Your task to perform on an android device: check data usage Image 0: 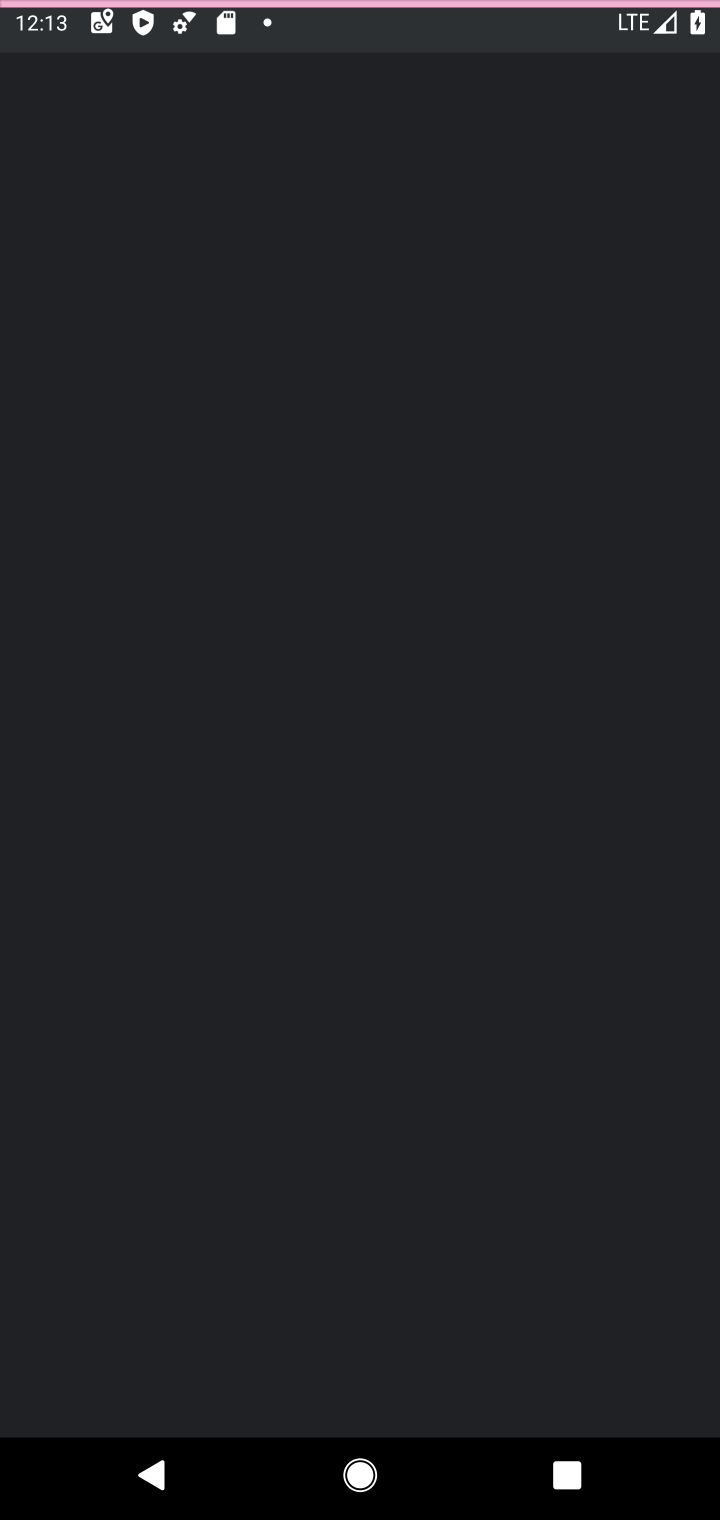
Step 0: press home button
Your task to perform on an android device: check data usage Image 1: 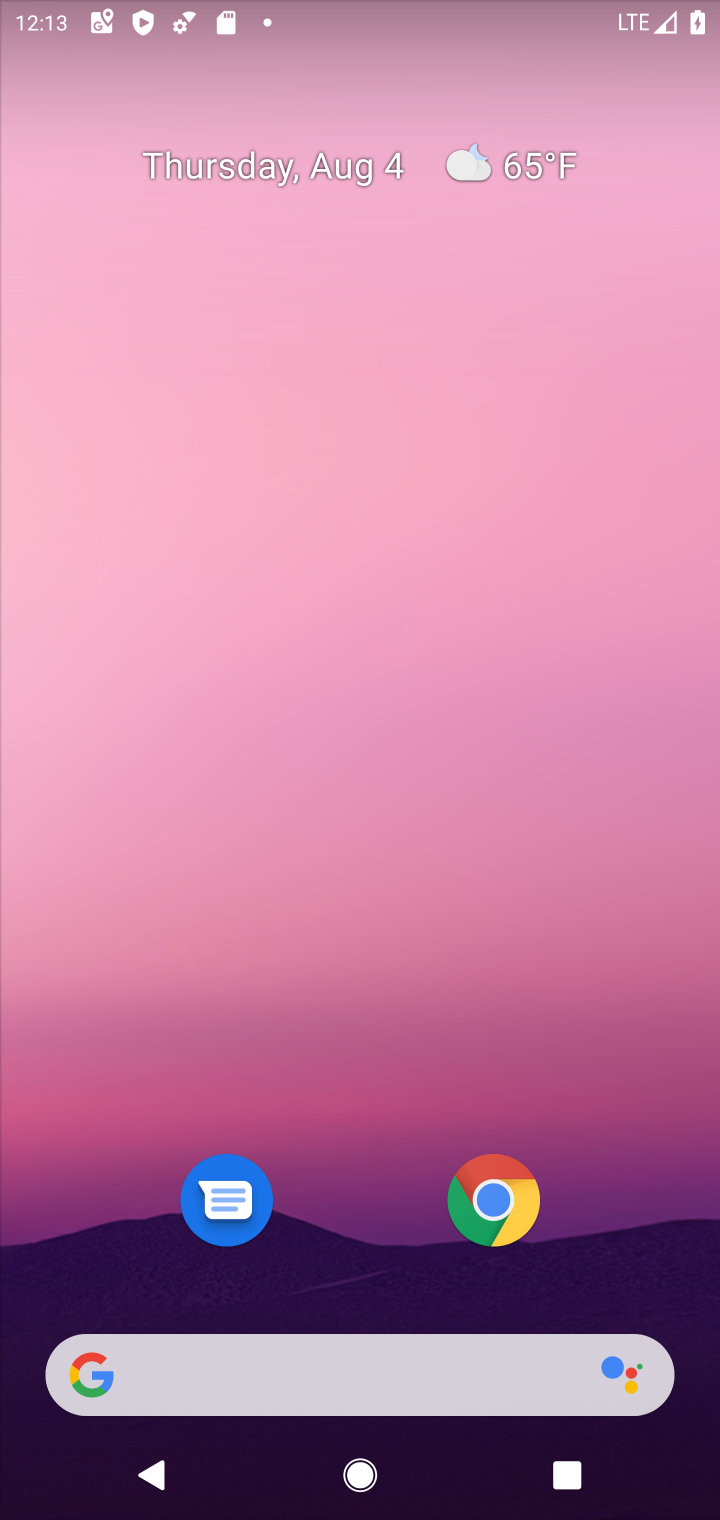
Step 1: drag from (427, 1094) to (414, 205)
Your task to perform on an android device: check data usage Image 2: 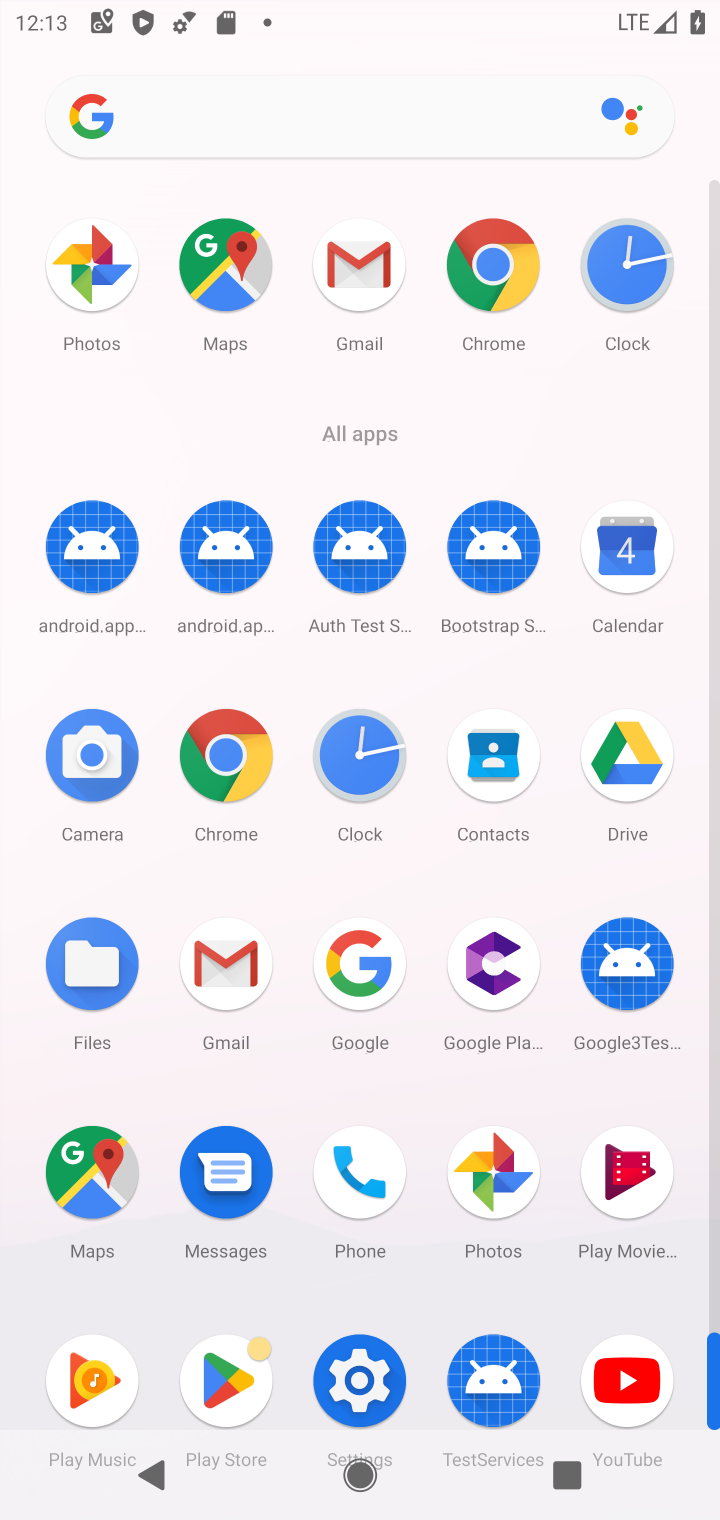
Step 2: drag from (304, 8) to (347, 1268)
Your task to perform on an android device: check data usage Image 3: 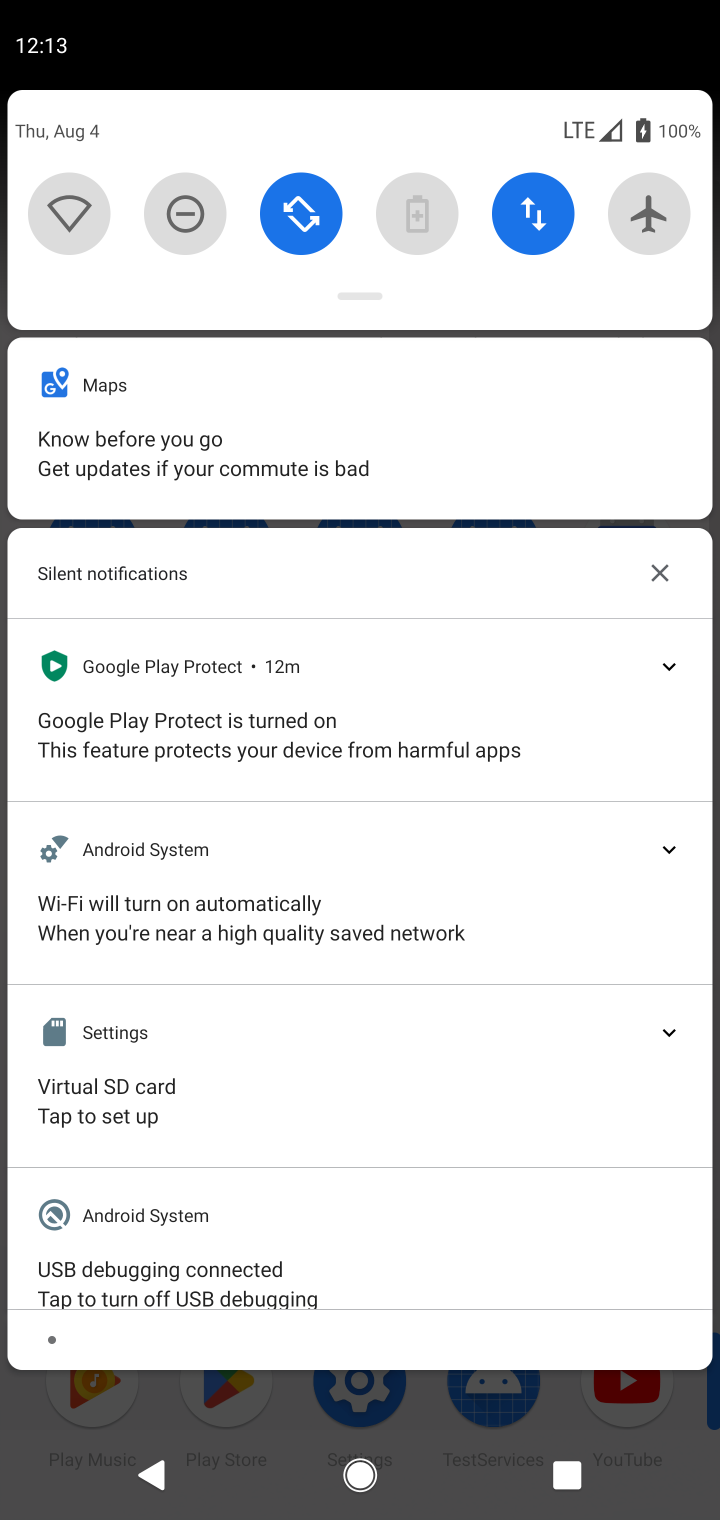
Step 3: drag from (432, 293) to (428, 1389)
Your task to perform on an android device: check data usage Image 4: 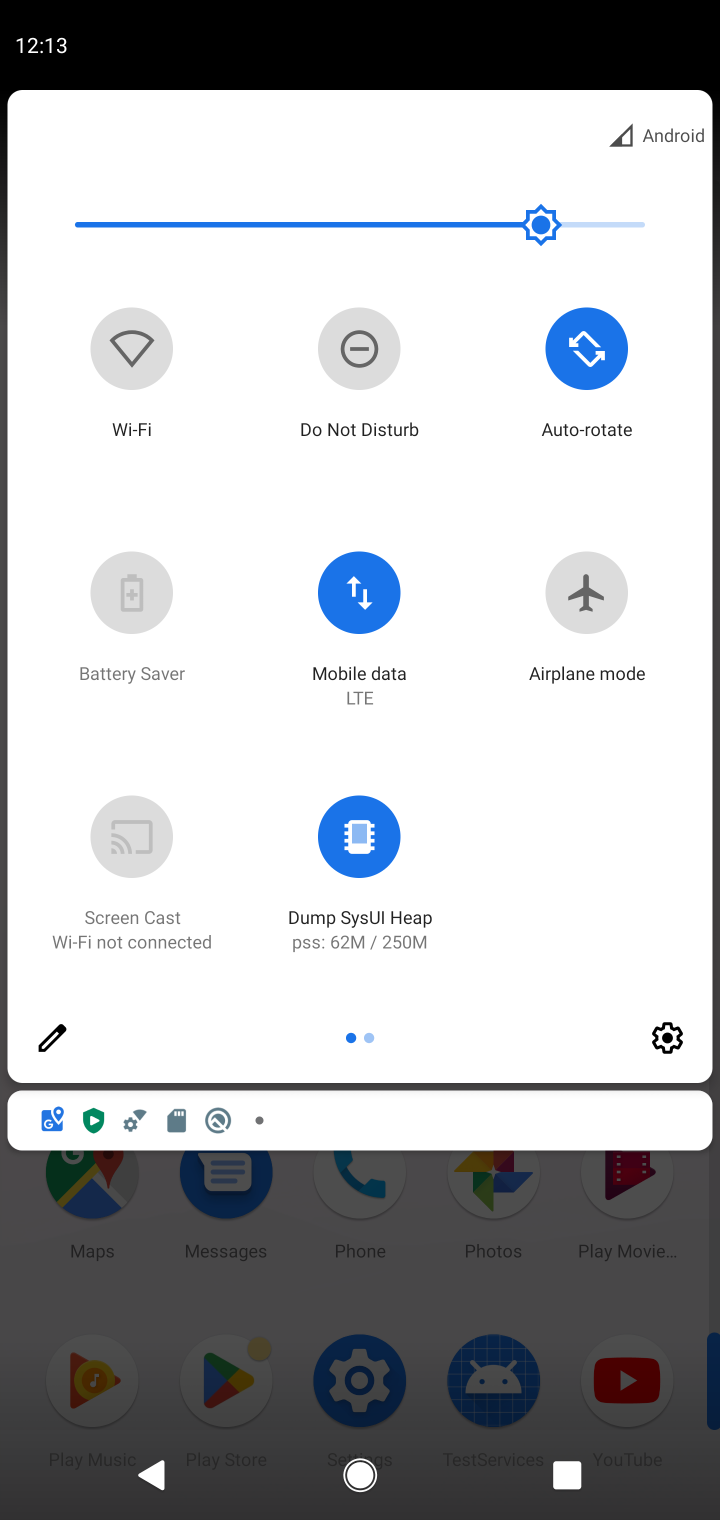
Step 4: click (328, 580)
Your task to perform on an android device: check data usage Image 5: 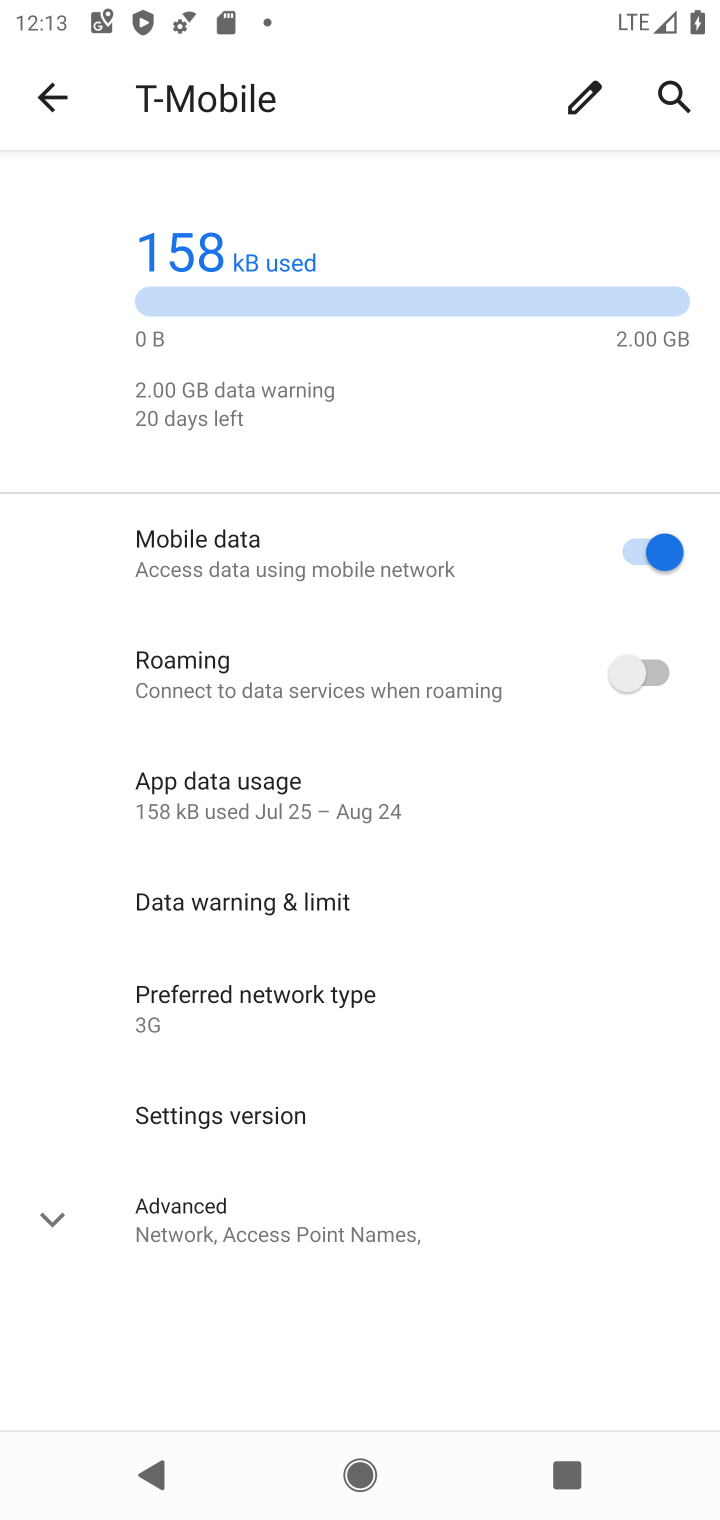
Step 5: task complete